Your task to perform on an android device: open app "Skype" (install if not already installed) Image 0: 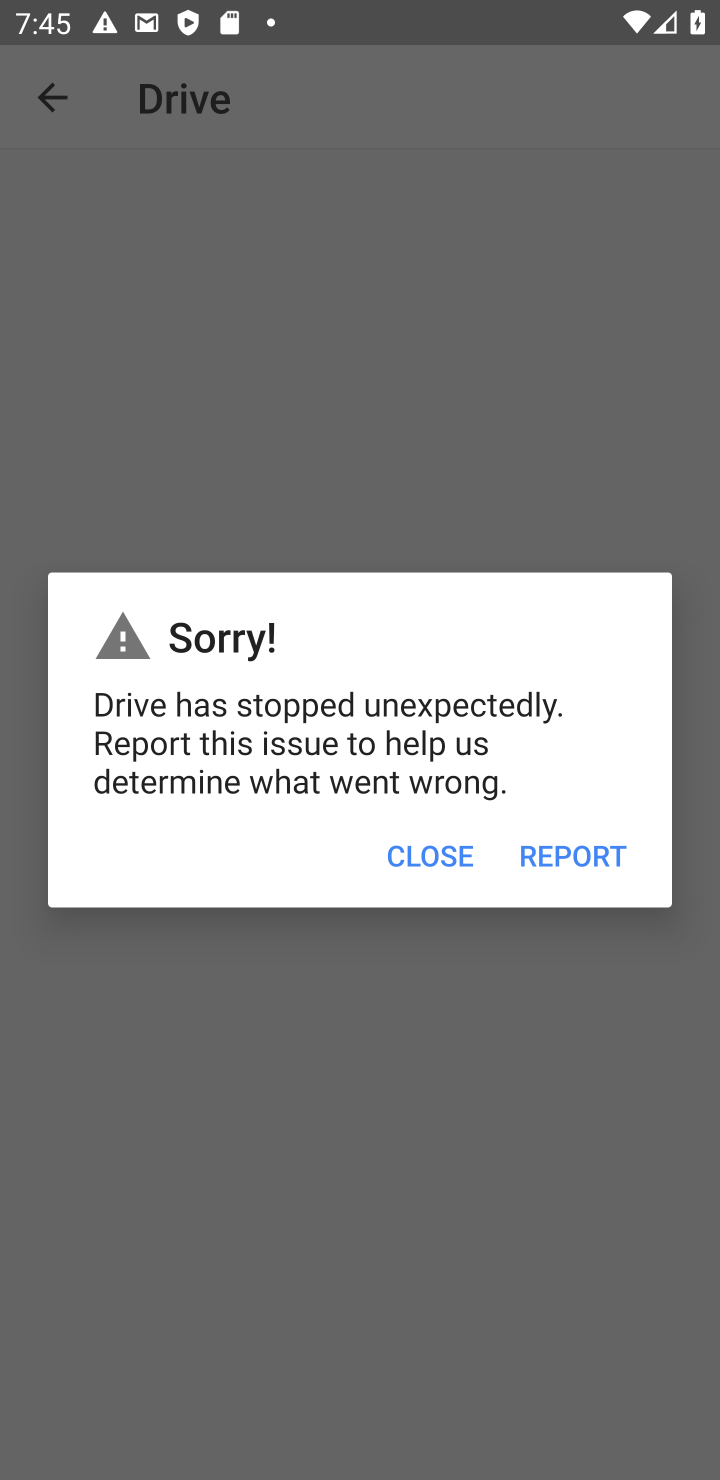
Step 0: press home button
Your task to perform on an android device: open app "Skype" (install if not already installed) Image 1: 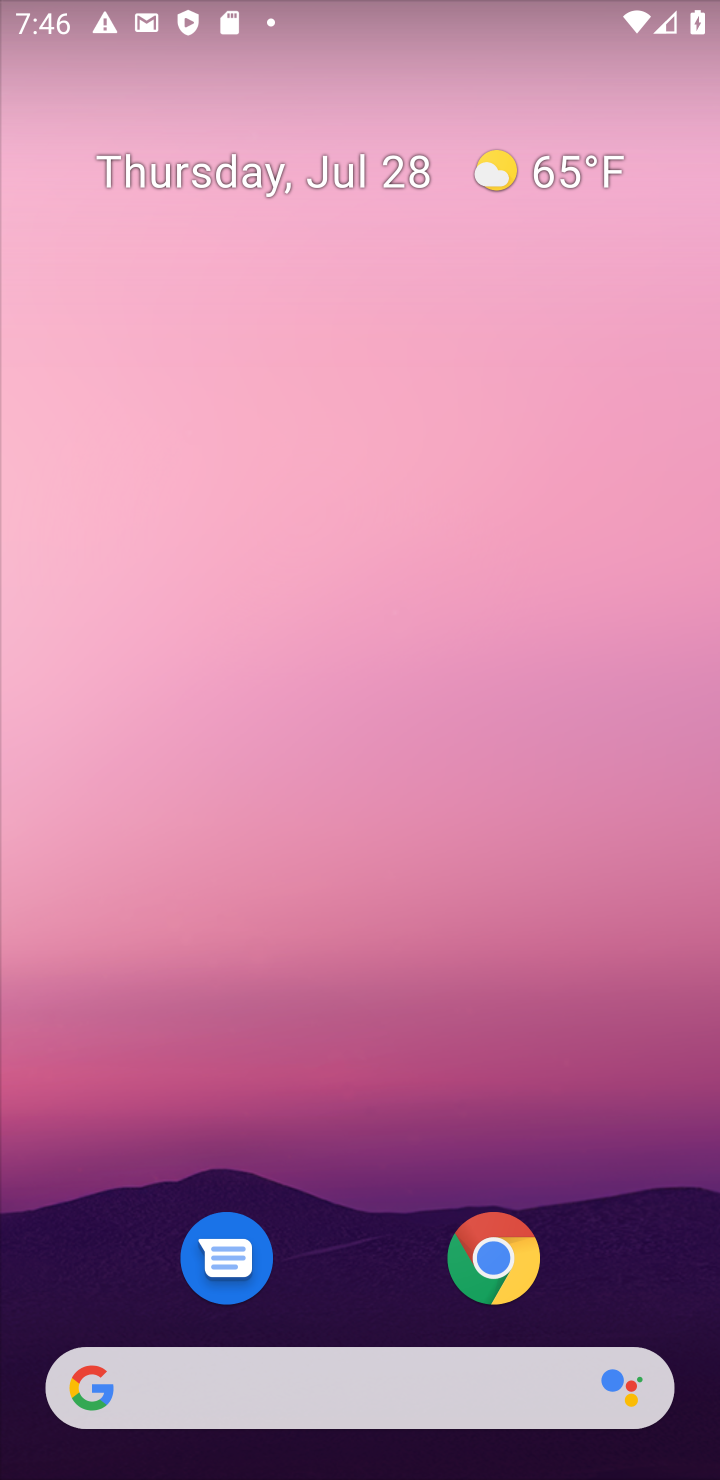
Step 1: drag from (401, 1452) to (366, 9)
Your task to perform on an android device: open app "Skype" (install if not already installed) Image 2: 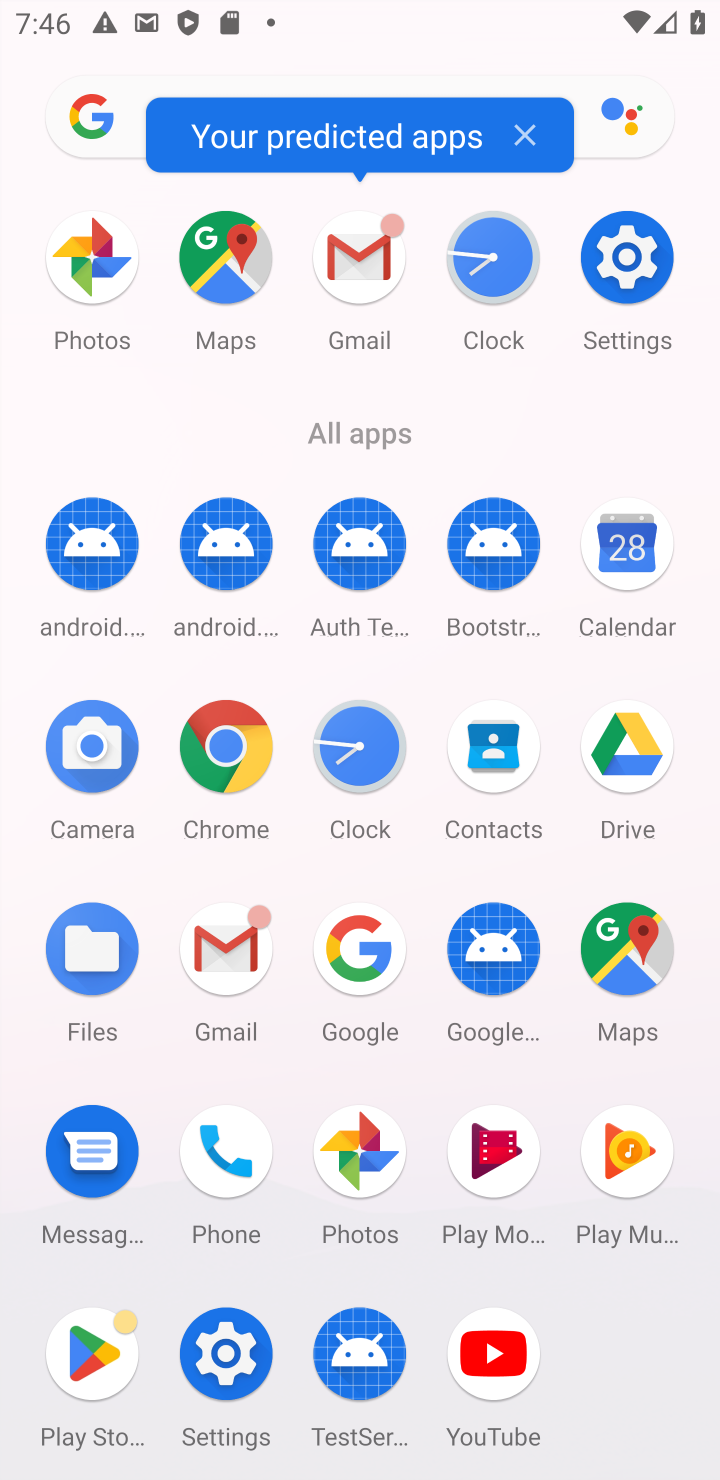
Step 2: click (53, 1345)
Your task to perform on an android device: open app "Skype" (install if not already installed) Image 3: 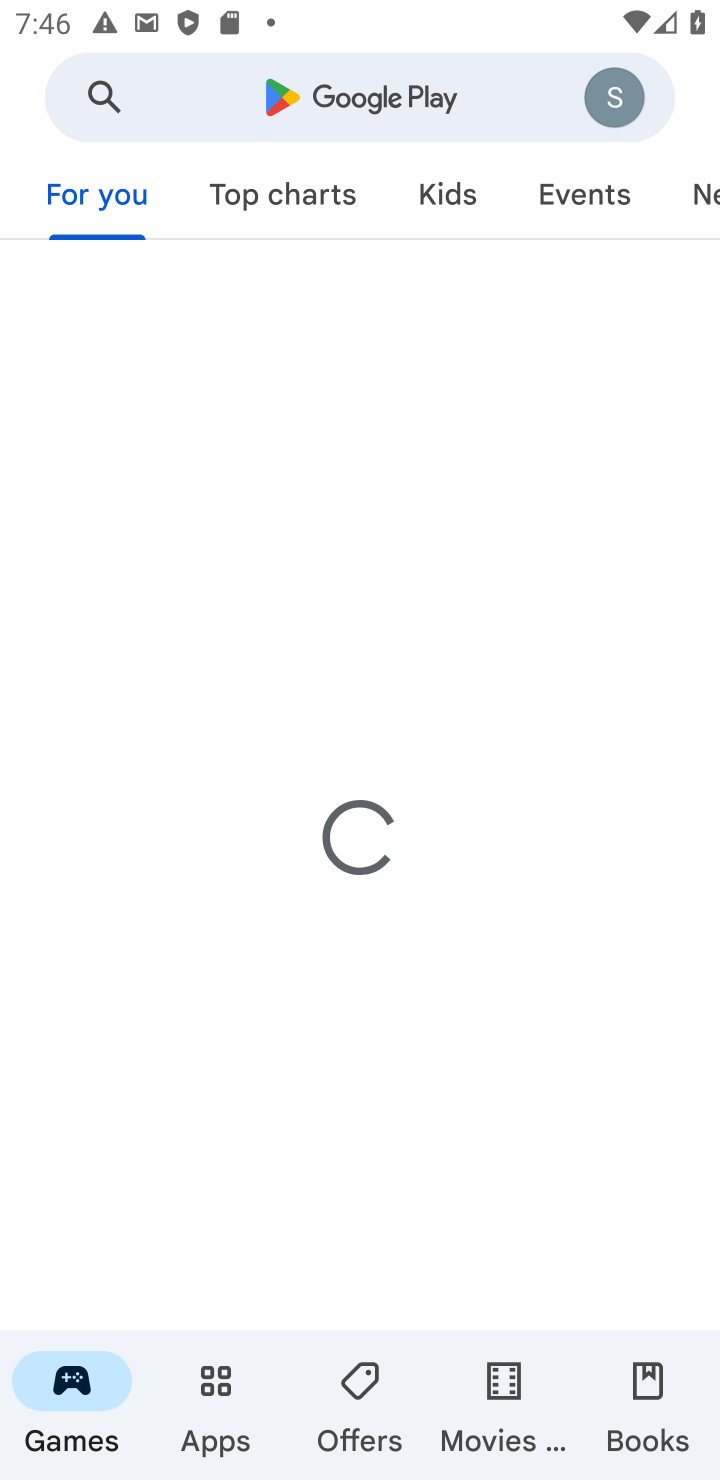
Step 3: click (417, 101)
Your task to perform on an android device: open app "Skype" (install if not already installed) Image 4: 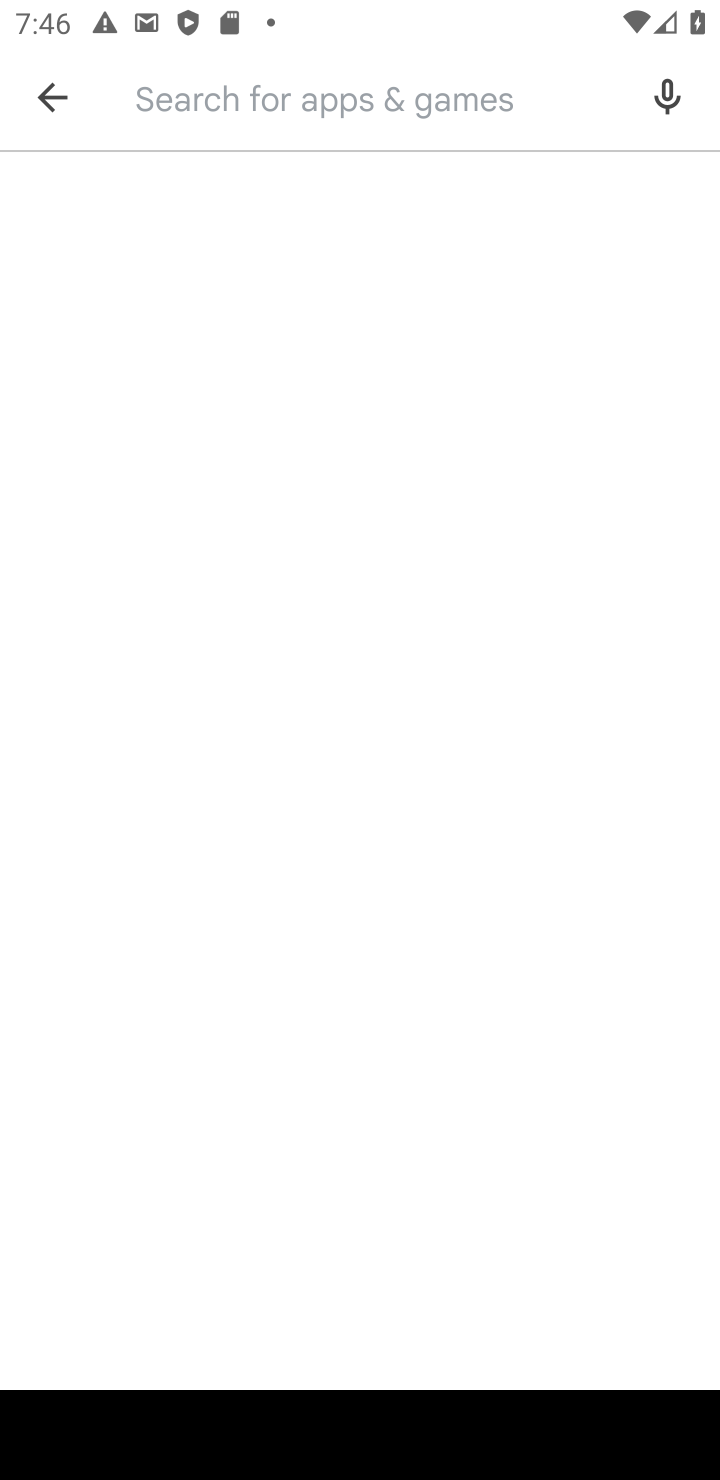
Step 4: type "Skype"
Your task to perform on an android device: open app "Skype" (install if not already installed) Image 5: 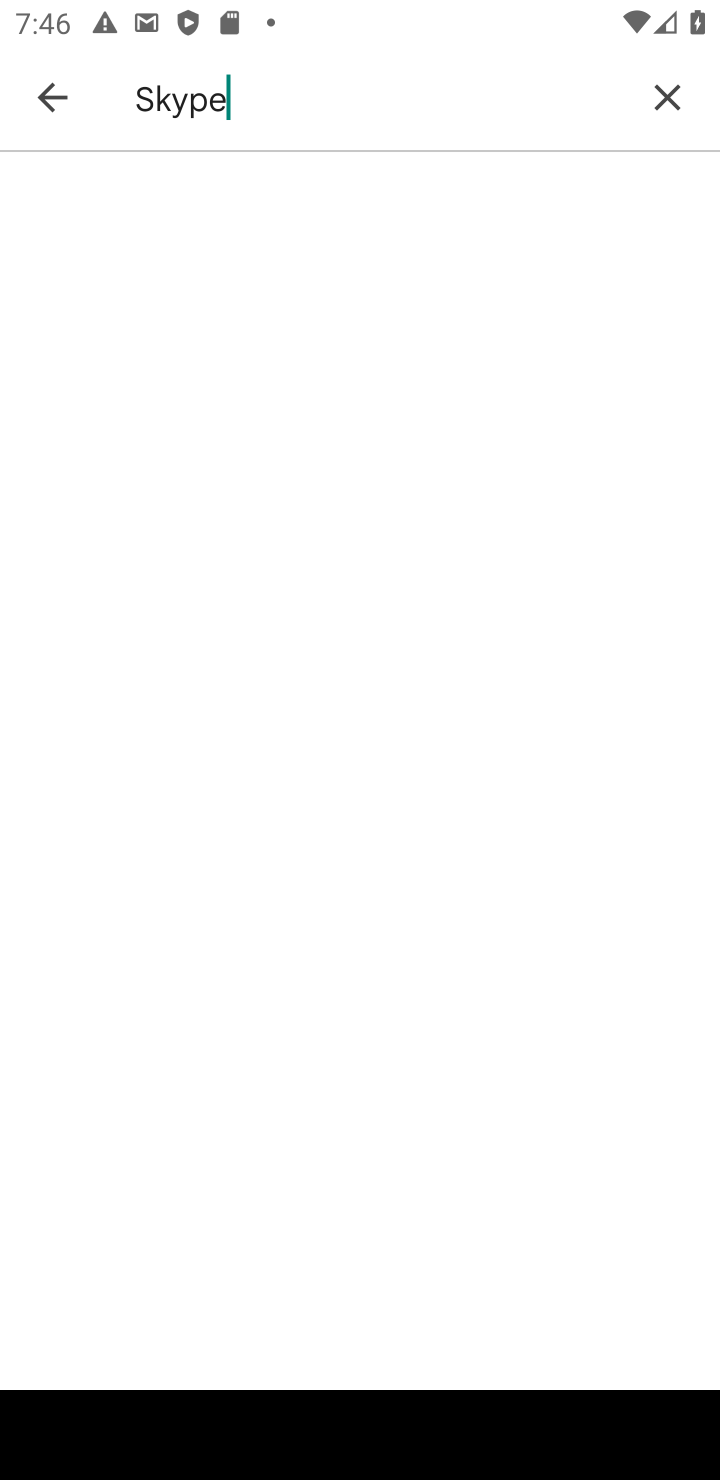
Step 5: press enter
Your task to perform on an android device: open app "Skype" (install if not already installed) Image 6: 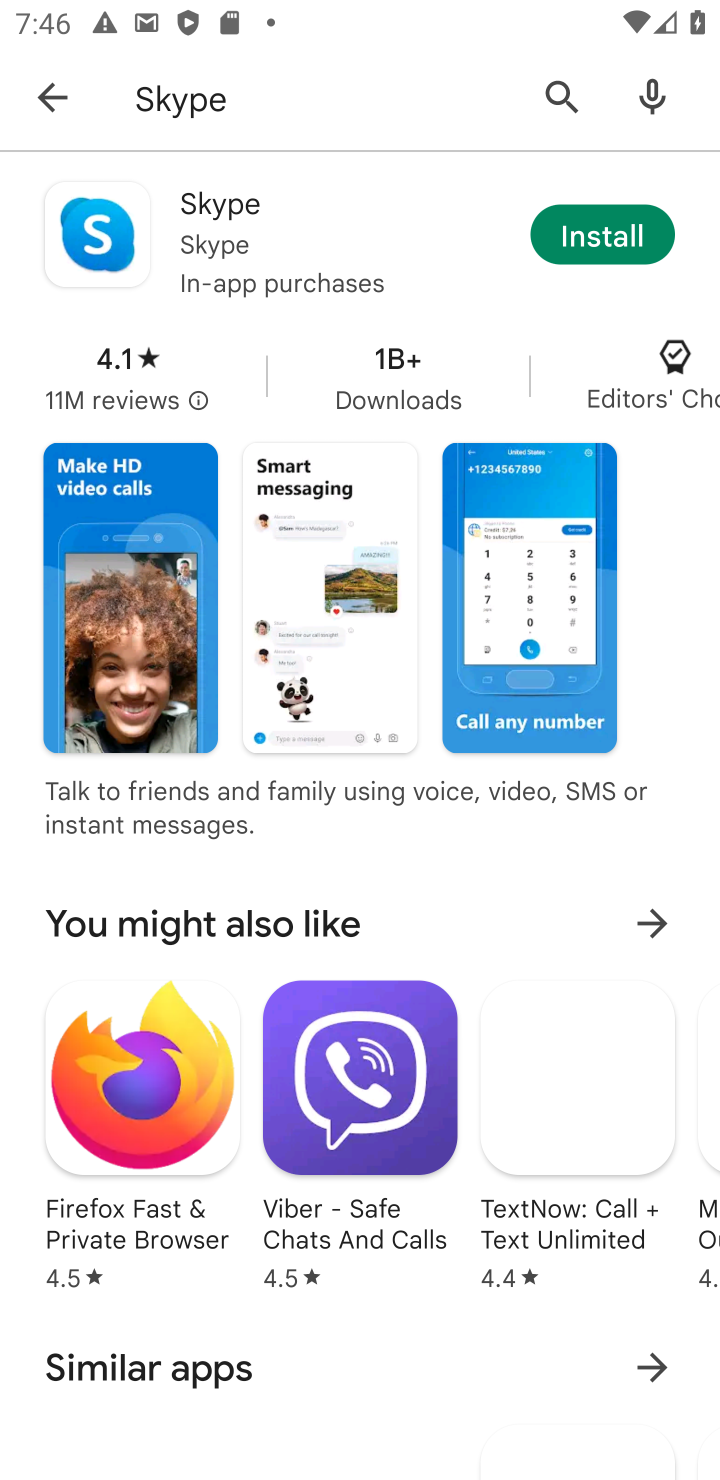
Step 6: click (618, 215)
Your task to perform on an android device: open app "Skype" (install if not already installed) Image 7: 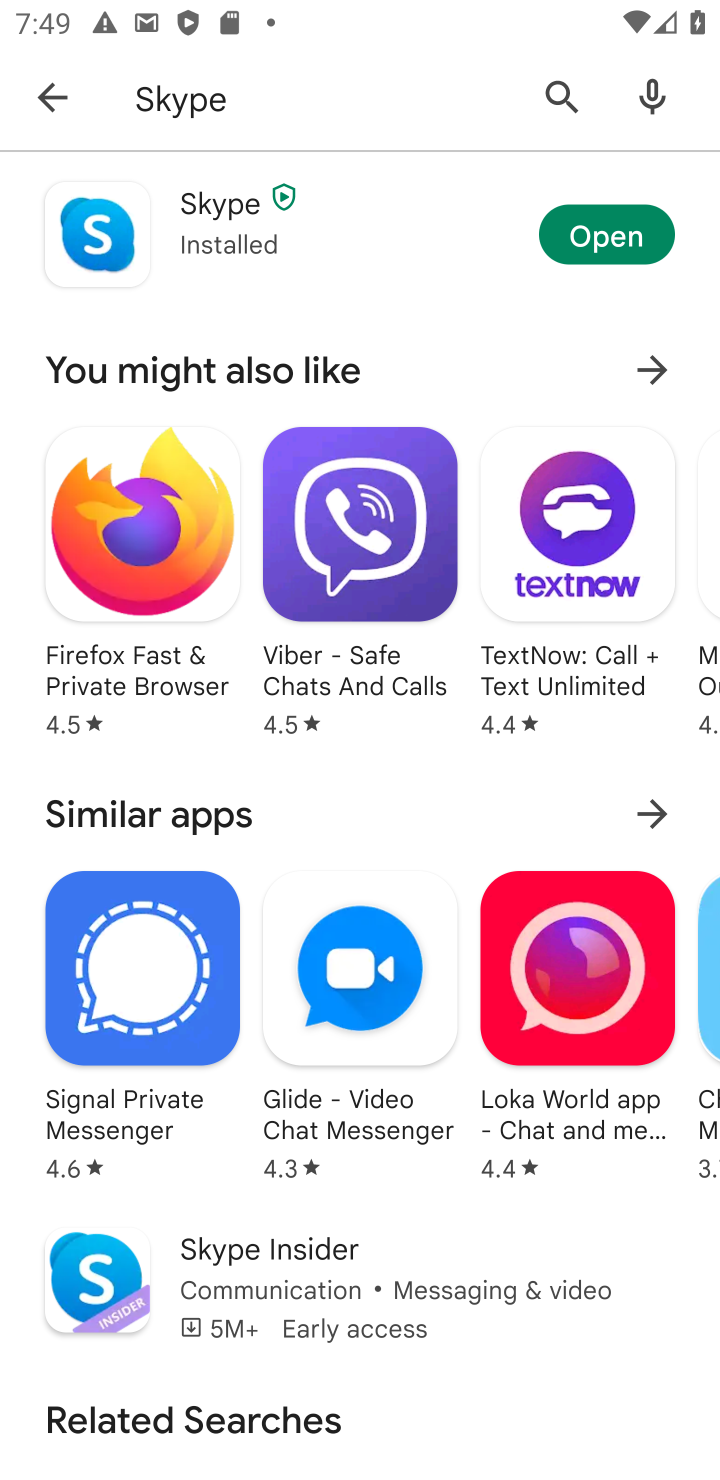
Step 7: click (620, 255)
Your task to perform on an android device: open app "Skype" (install if not already installed) Image 8: 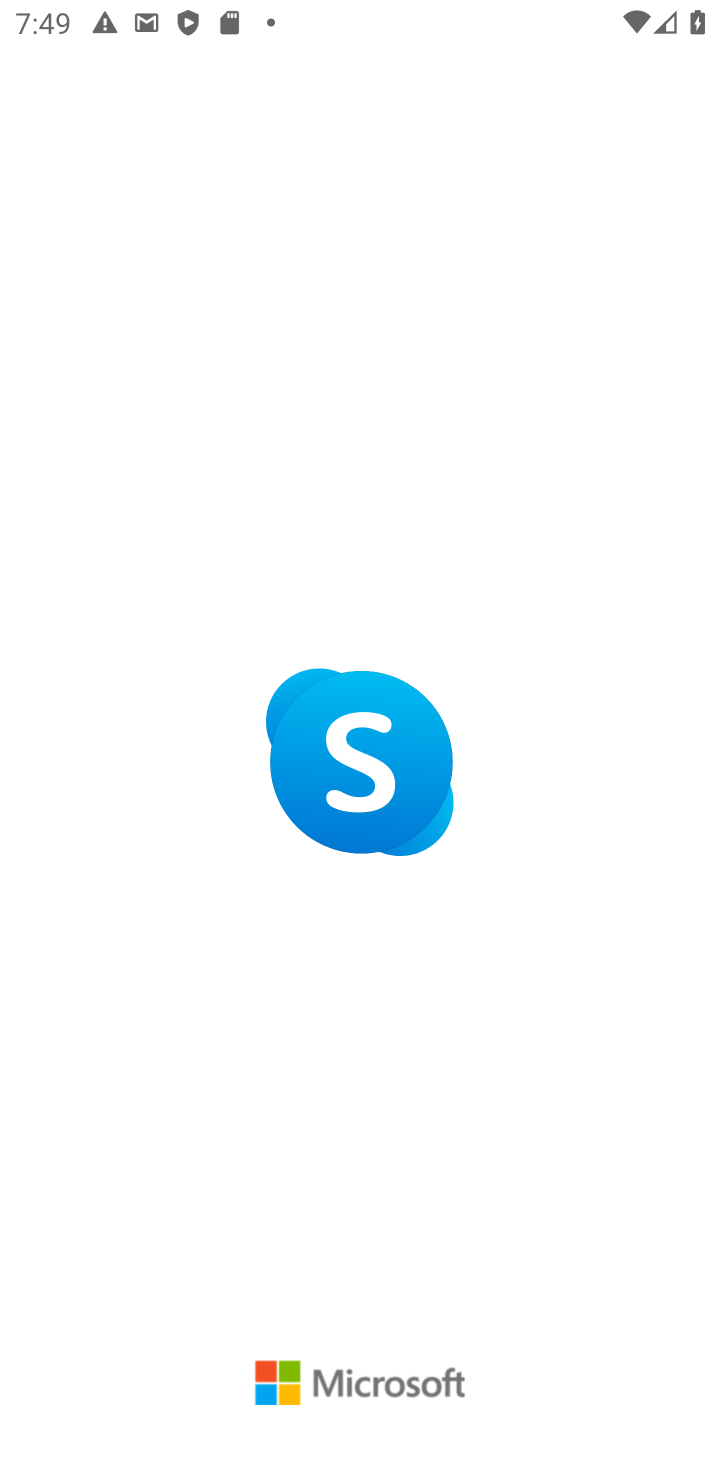
Step 8: task complete